Your task to perform on an android device: Open the web browser Image 0: 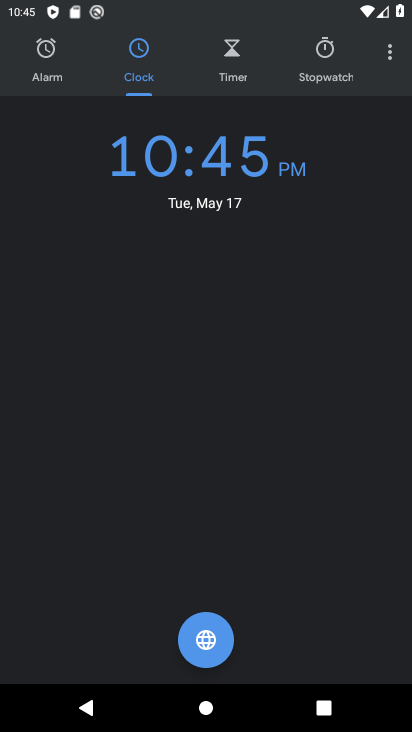
Step 0: press home button
Your task to perform on an android device: Open the web browser Image 1: 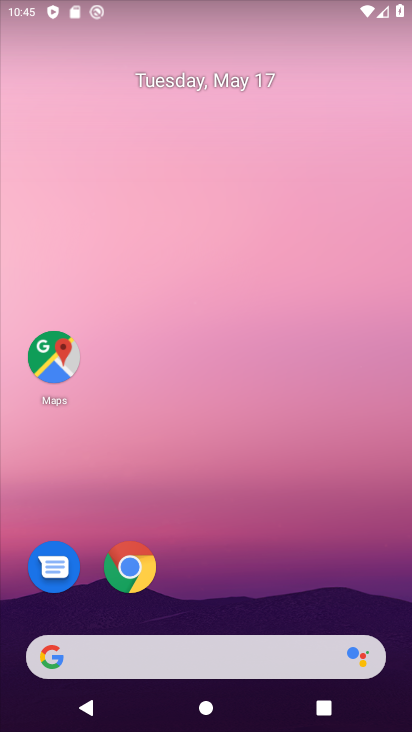
Step 1: click (130, 568)
Your task to perform on an android device: Open the web browser Image 2: 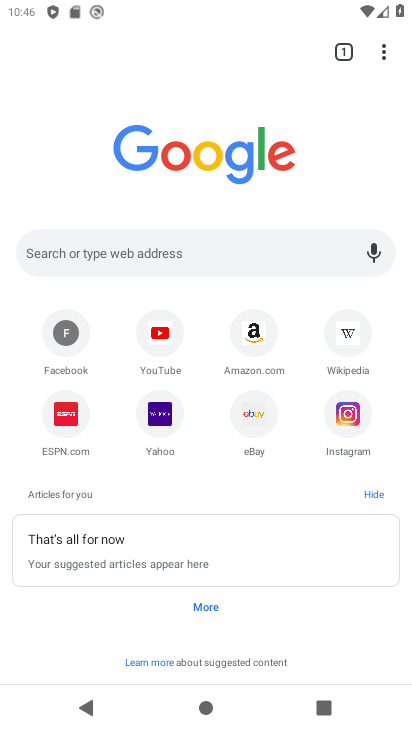
Step 2: task complete